Your task to perform on an android device: What's on my calendar tomorrow? Image 0: 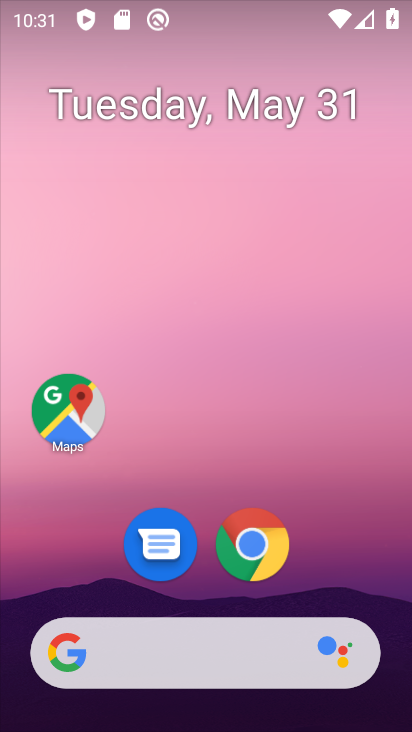
Step 0: drag from (207, 600) to (223, 186)
Your task to perform on an android device: What's on my calendar tomorrow? Image 1: 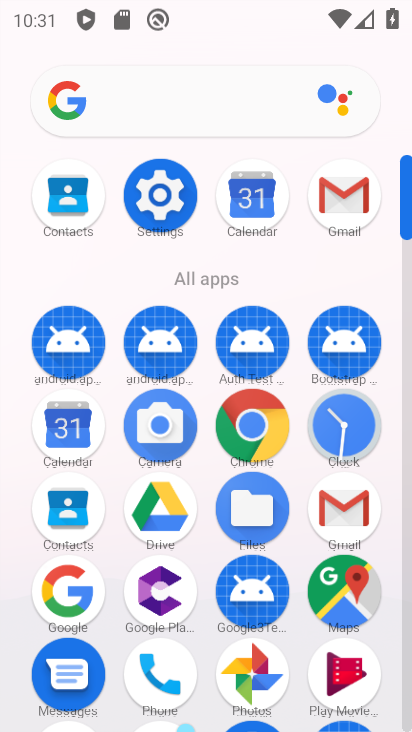
Step 1: click (243, 201)
Your task to perform on an android device: What's on my calendar tomorrow? Image 2: 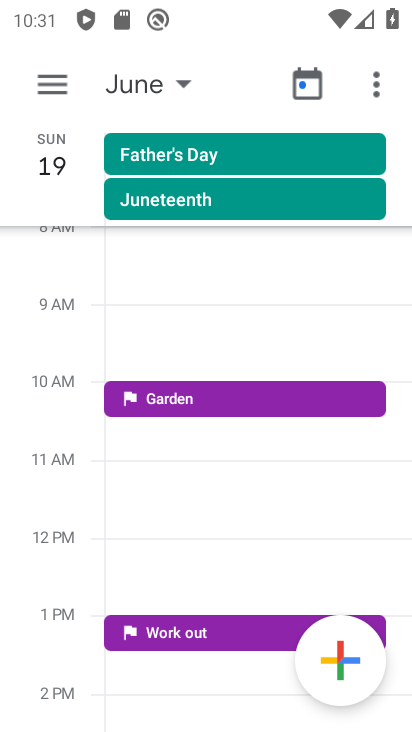
Step 2: click (164, 91)
Your task to perform on an android device: What's on my calendar tomorrow? Image 3: 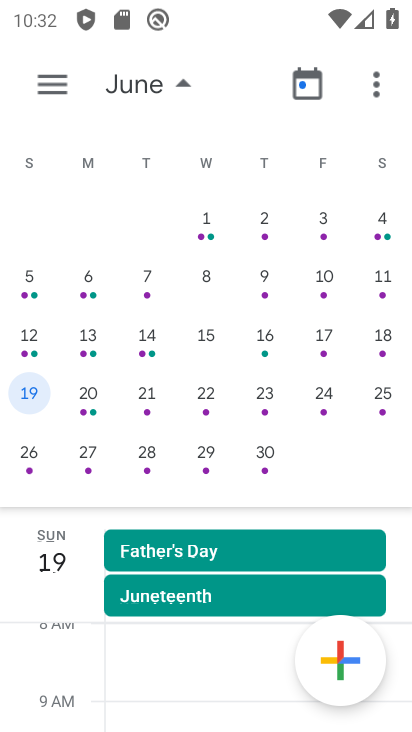
Step 3: click (205, 224)
Your task to perform on an android device: What's on my calendar tomorrow? Image 4: 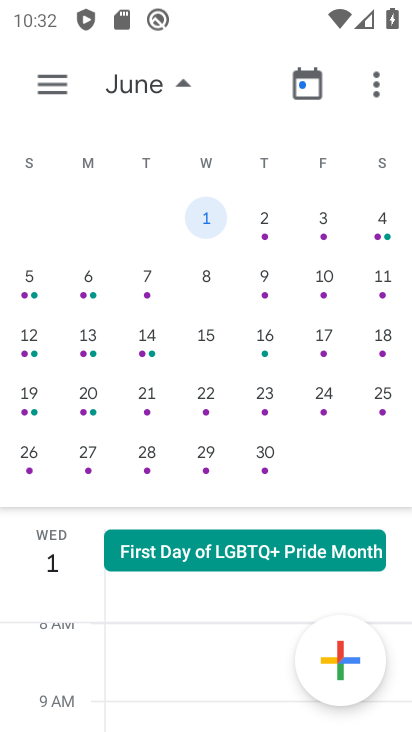
Step 4: task complete